Your task to perform on an android device: change alarm snooze length Image 0: 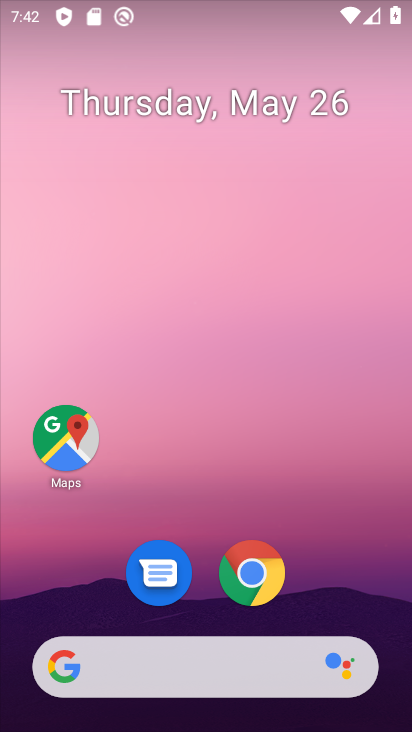
Step 0: drag from (350, 563) to (215, 23)
Your task to perform on an android device: change alarm snooze length Image 1: 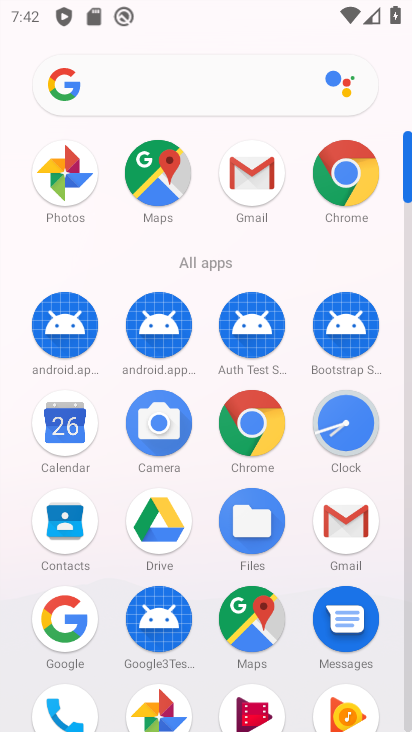
Step 1: drag from (15, 566) to (11, 288)
Your task to perform on an android device: change alarm snooze length Image 2: 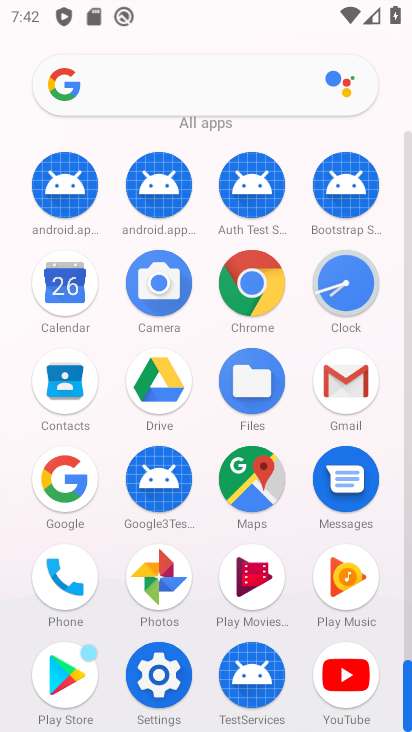
Step 2: click (343, 281)
Your task to perform on an android device: change alarm snooze length Image 3: 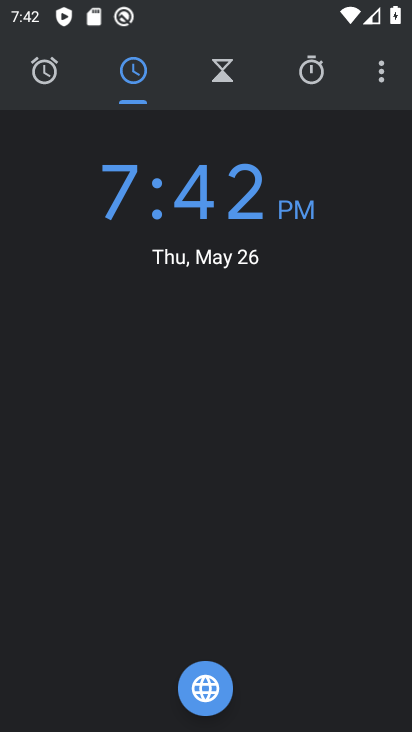
Step 3: drag from (381, 77) to (238, 146)
Your task to perform on an android device: change alarm snooze length Image 4: 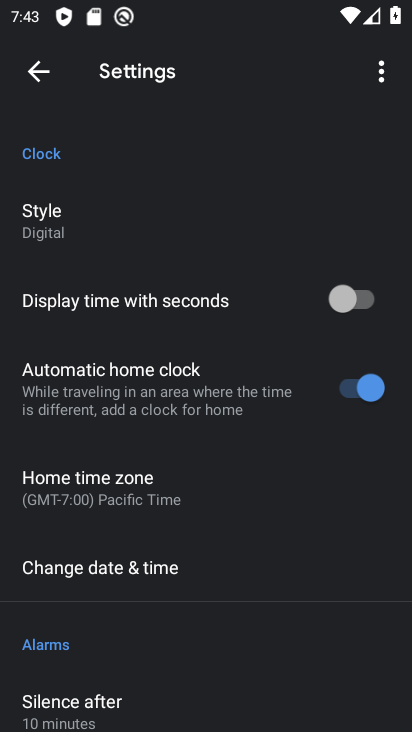
Step 4: drag from (221, 607) to (221, 242)
Your task to perform on an android device: change alarm snooze length Image 5: 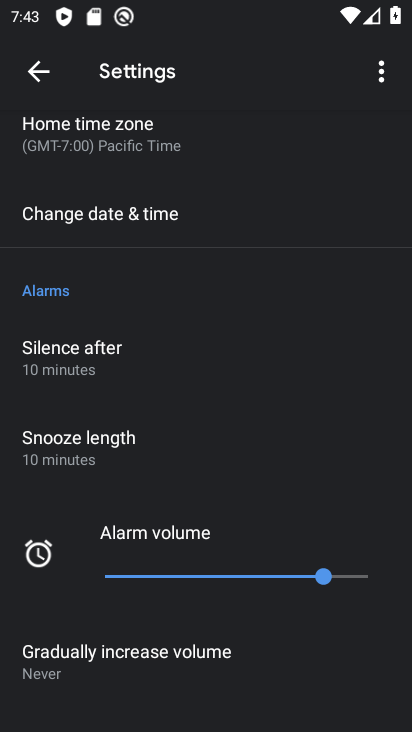
Step 5: click (177, 444)
Your task to perform on an android device: change alarm snooze length Image 6: 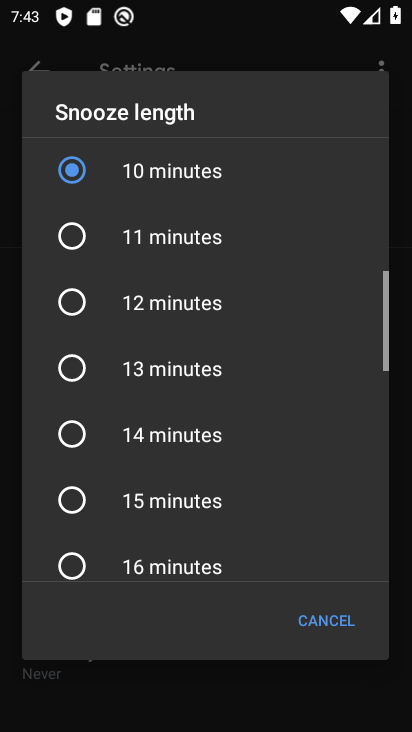
Step 6: click (116, 238)
Your task to perform on an android device: change alarm snooze length Image 7: 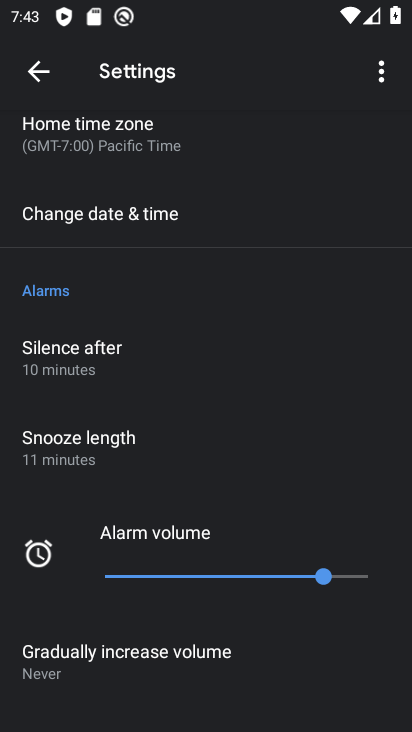
Step 7: task complete